Your task to perform on an android device: open app "Expedia: Hotels, Flights & Car" (install if not already installed), go to login, and select forgot password Image 0: 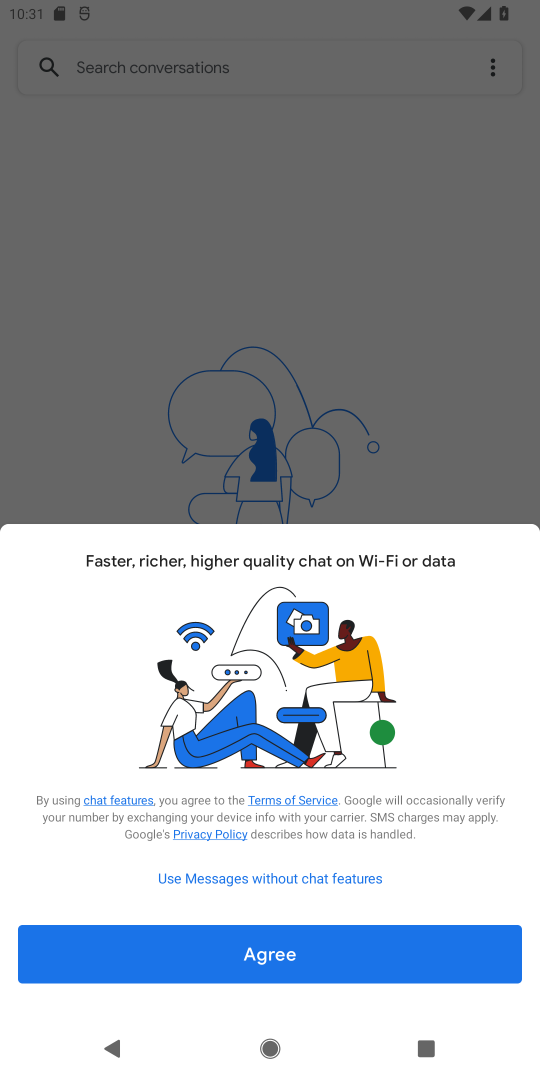
Step 0: press back button
Your task to perform on an android device: open app "Expedia: Hotels, Flights & Car" (install if not already installed), go to login, and select forgot password Image 1: 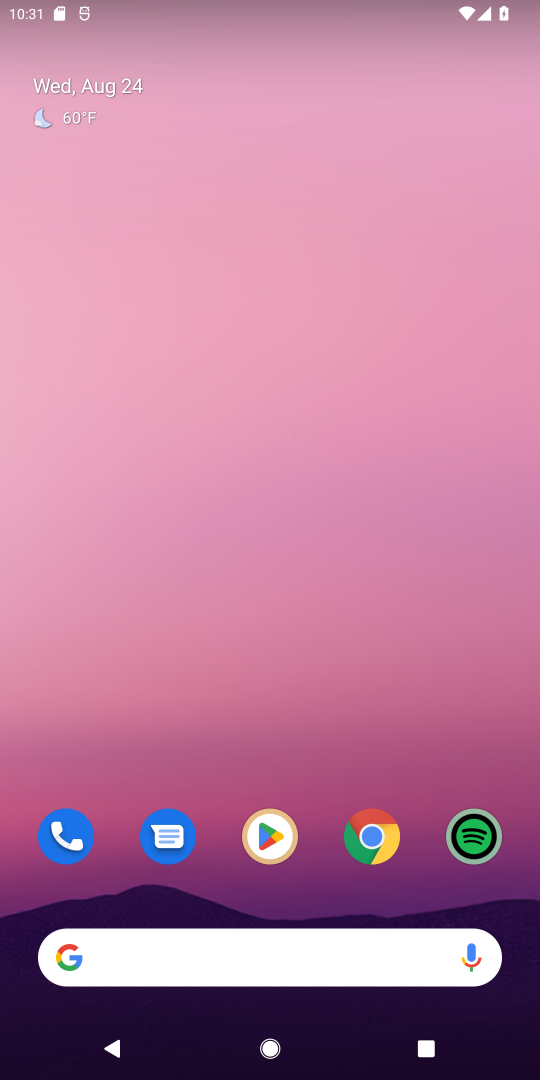
Step 1: click (271, 838)
Your task to perform on an android device: open app "Expedia: Hotels, Flights & Car" (install if not already installed), go to login, and select forgot password Image 2: 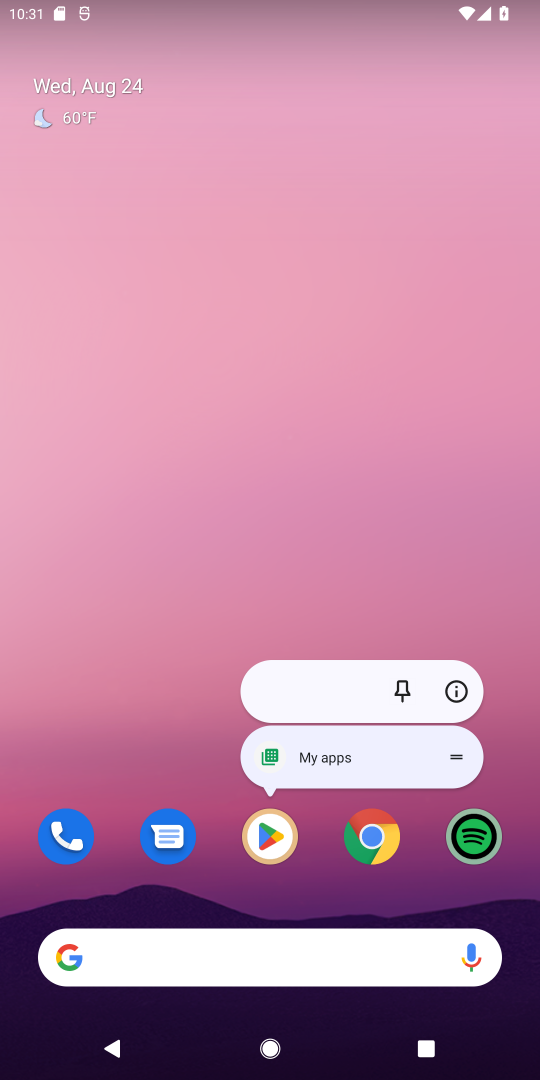
Step 2: click (269, 838)
Your task to perform on an android device: open app "Expedia: Hotels, Flights & Car" (install if not already installed), go to login, and select forgot password Image 3: 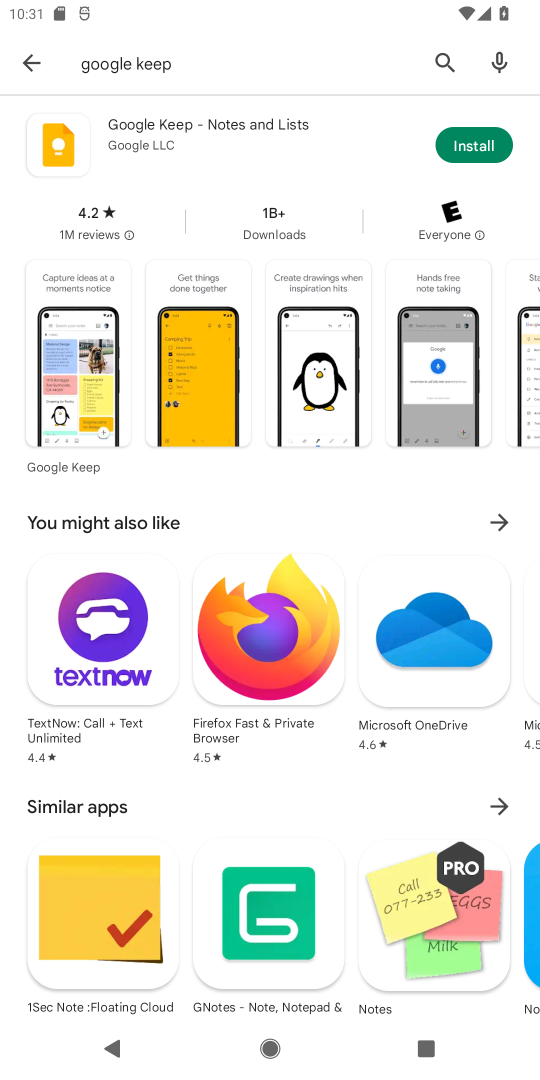
Step 3: click (441, 62)
Your task to perform on an android device: open app "Expedia: Hotels, Flights & Car" (install if not already installed), go to login, and select forgot password Image 4: 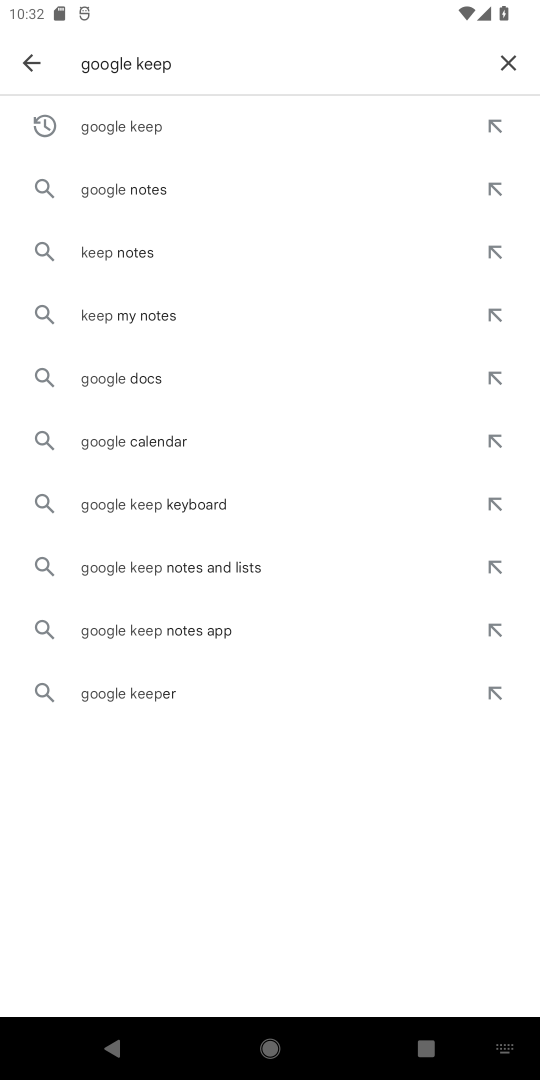
Step 4: click (490, 59)
Your task to perform on an android device: open app "Expedia: Hotels, Flights & Car" (install if not already installed), go to login, and select forgot password Image 5: 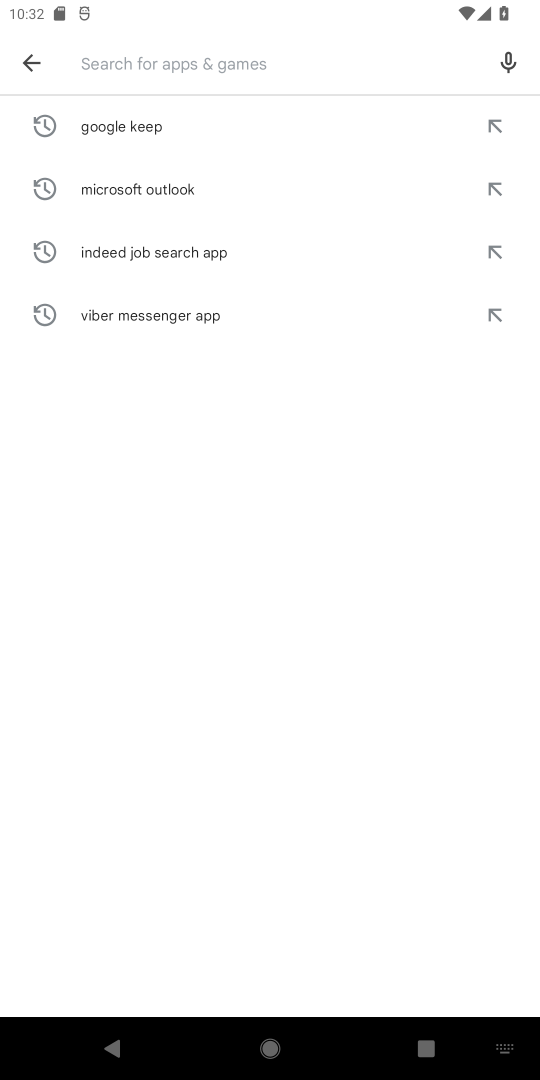
Step 5: type "Expedia: Hotels, Flights & Car"
Your task to perform on an android device: open app "Expedia: Hotels, Flights & Car" (install if not already installed), go to login, and select forgot password Image 6: 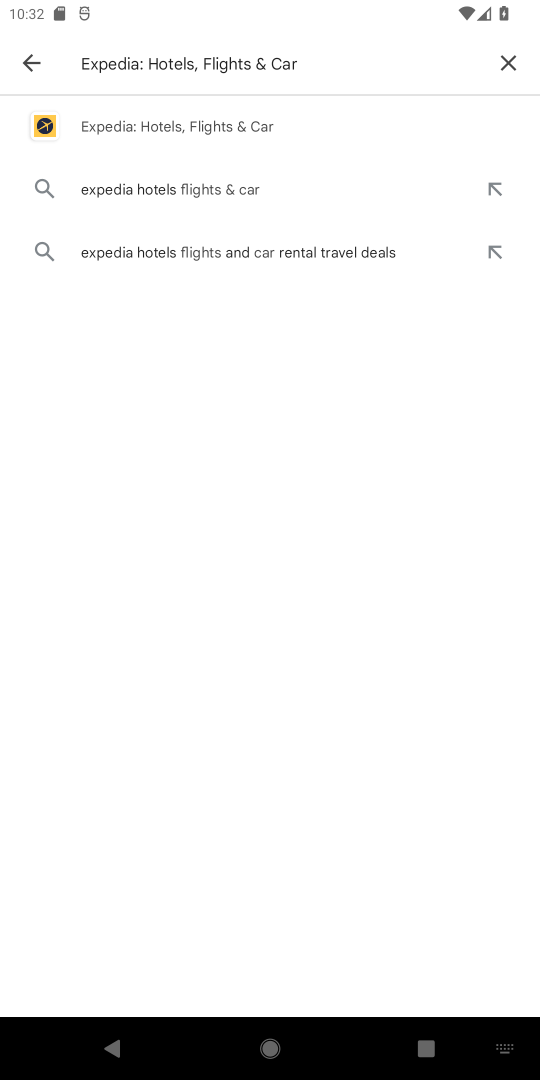
Step 6: type "Expedia: H"
Your task to perform on an android device: open app "Expedia: Hotels, Flights & Car" (install if not already installed), go to login, and select forgot password Image 7: 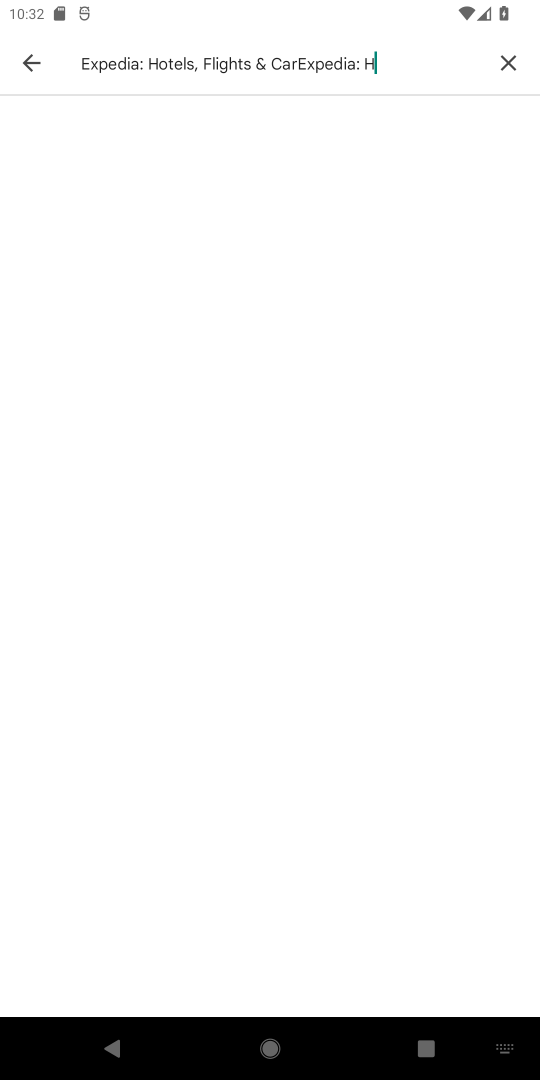
Step 7: click (500, 57)
Your task to perform on an android device: open app "Expedia: Hotels, Flights & Car" (install if not already installed), go to login, and select forgot password Image 8: 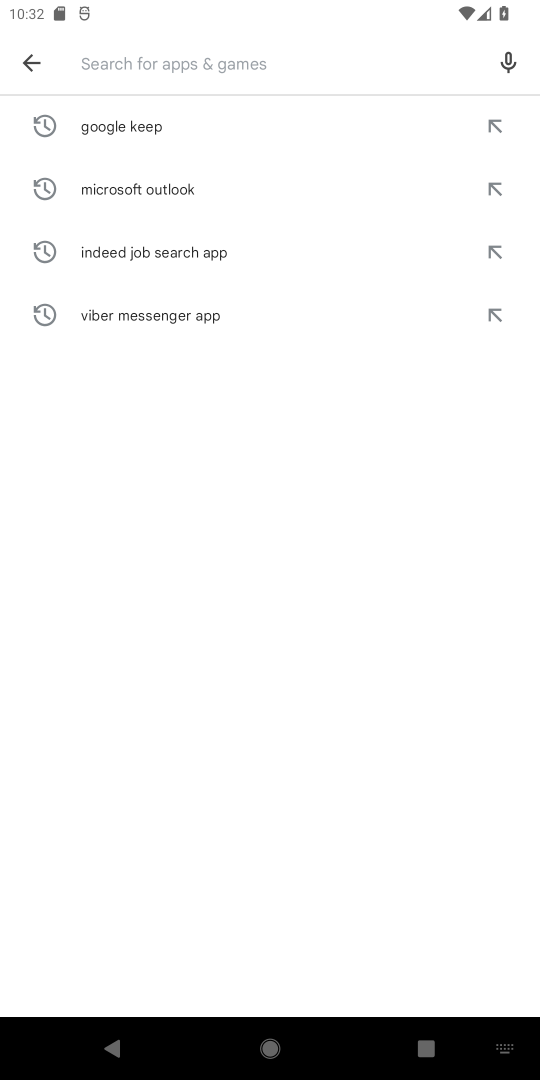
Step 8: type "Expedia: Hot"
Your task to perform on an android device: open app "Expedia: Hotels, Flights & Car" (install if not already installed), go to login, and select forgot password Image 9: 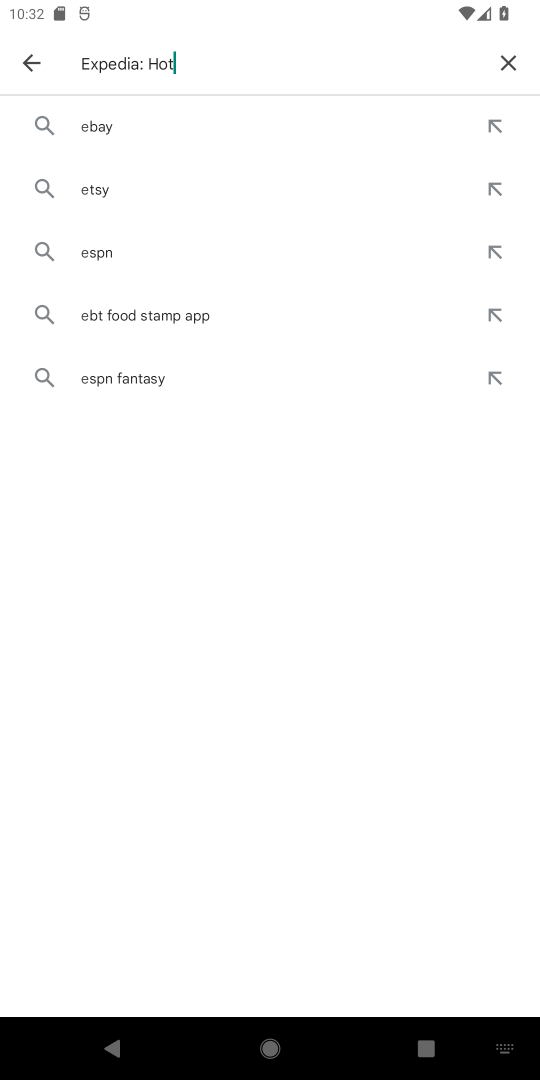
Step 9: type ""
Your task to perform on an android device: open app "Expedia: Hotels, Flights & Car" (install if not already installed), go to login, and select forgot password Image 10: 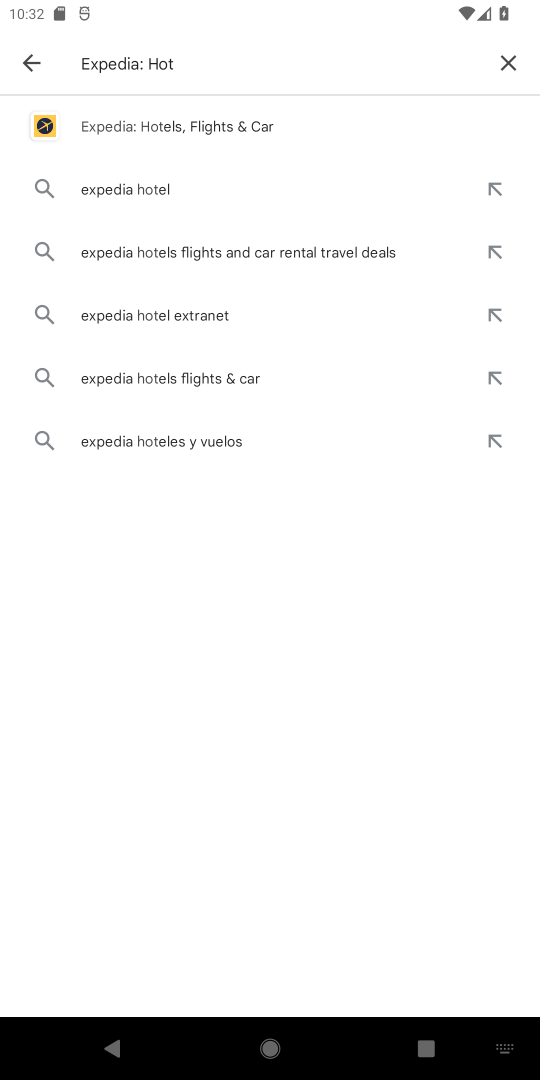
Step 10: click (180, 124)
Your task to perform on an android device: open app "Expedia: Hotels, Flights & Car" (install if not already installed), go to login, and select forgot password Image 11: 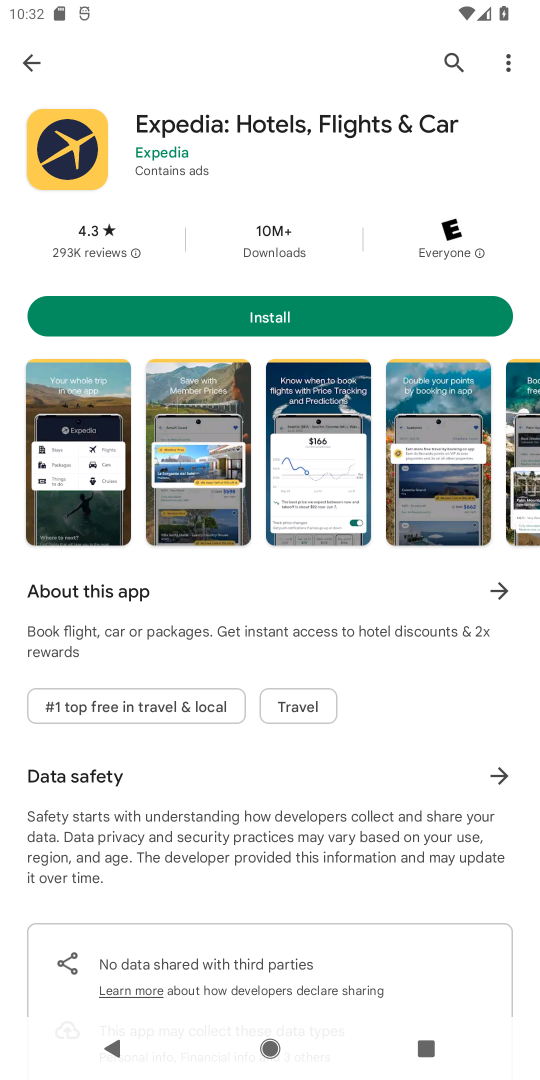
Step 11: click (326, 308)
Your task to perform on an android device: open app "Expedia: Hotels, Flights & Car" (install if not already installed), go to login, and select forgot password Image 12: 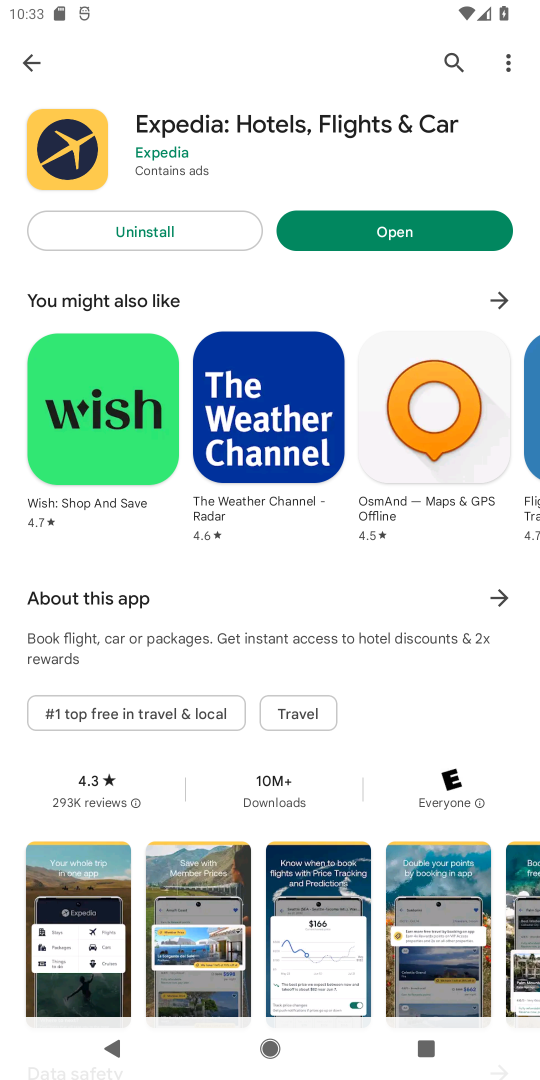
Step 12: click (416, 234)
Your task to perform on an android device: open app "Expedia: Hotels, Flights & Car" (install if not already installed), go to login, and select forgot password Image 13: 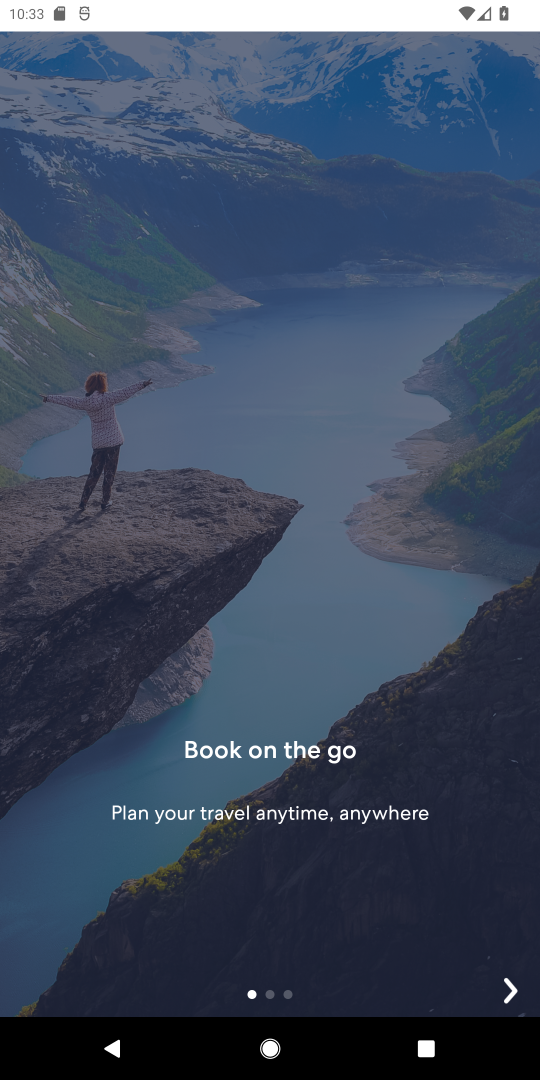
Step 13: task complete